Your task to perform on an android device: refresh tabs in the chrome app Image 0: 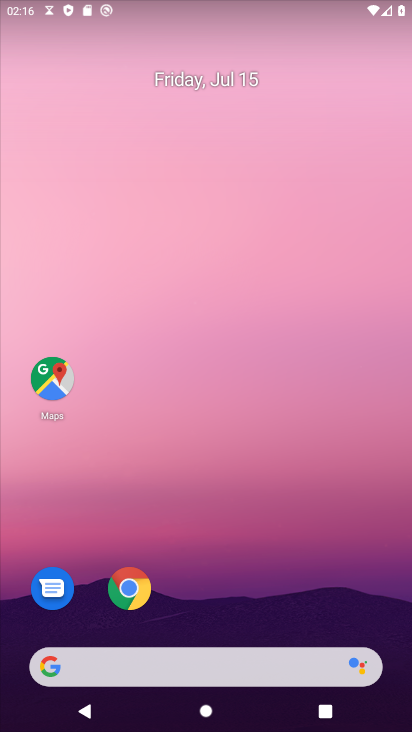
Step 0: click (133, 596)
Your task to perform on an android device: refresh tabs in the chrome app Image 1: 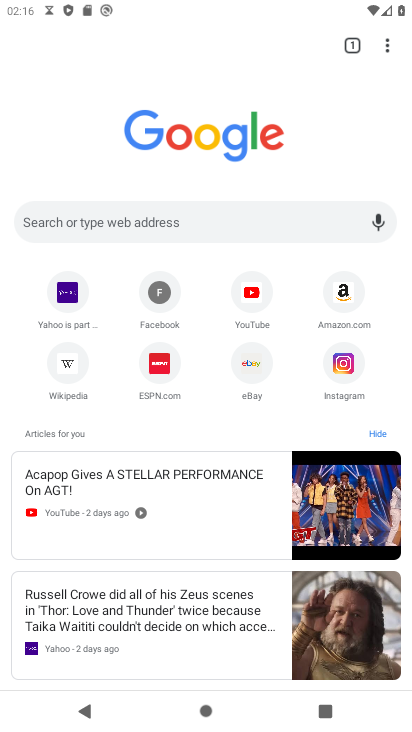
Step 1: click (386, 59)
Your task to perform on an android device: refresh tabs in the chrome app Image 2: 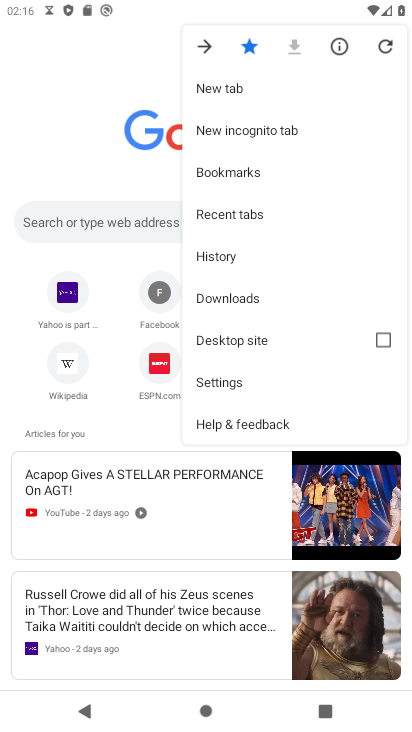
Step 2: click (385, 43)
Your task to perform on an android device: refresh tabs in the chrome app Image 3: 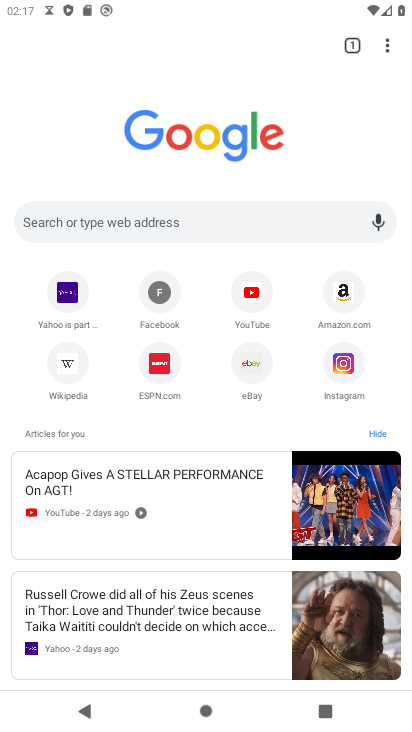
Step 3: task complete